Your task to perform on an android device: toggle improve location accuracy Image 0: 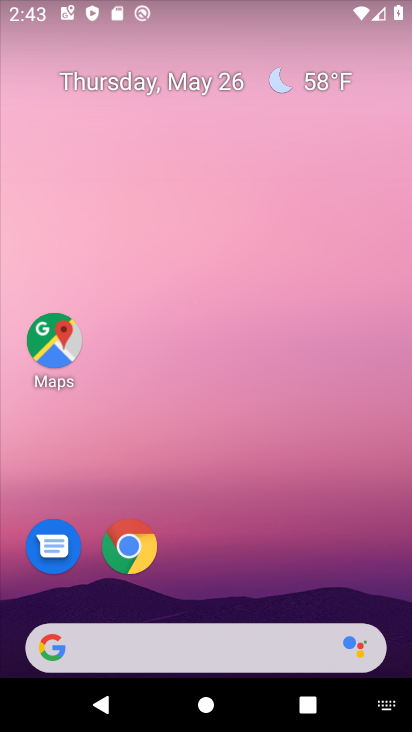
Step 0: press home button
Your task to perform on an android device: toggle improve location accuracy Image 1: 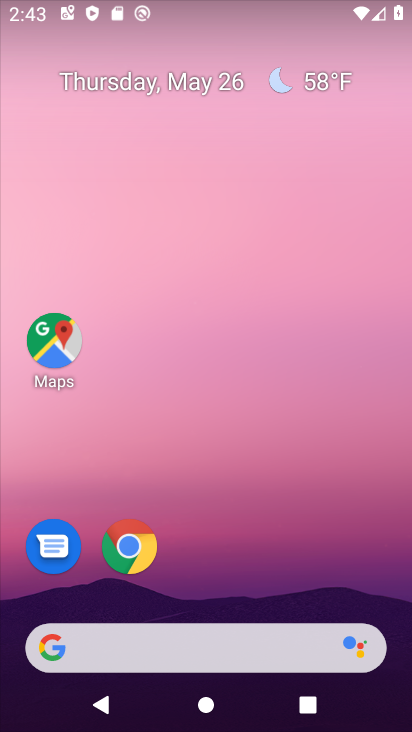
Step 1: drag from (216, 598) to (270, 33)
Your task to perform on an android device: toggle improve location accuracy Image 2: 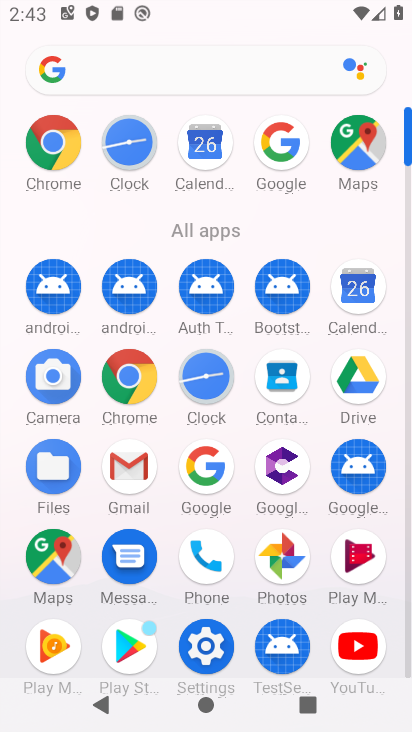
Step 2: click (208, 639)
Your task to perform on an android device: toggle improve location accuracy Image 3: 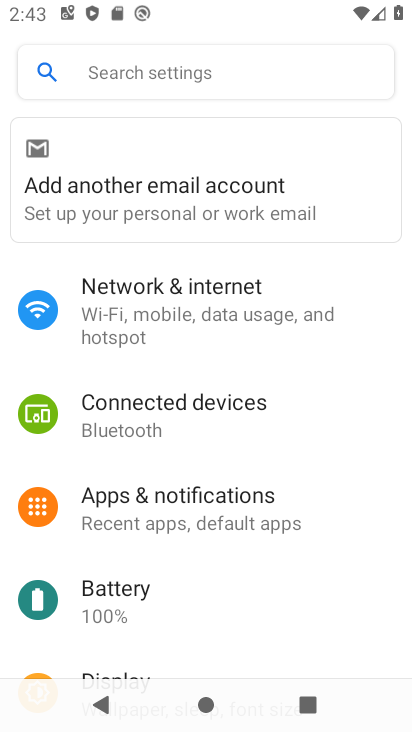
Step 3: drag from (206, 636) to (219, 66)
Your task to perform on an android device: toggle improve location accuracy Image 4: 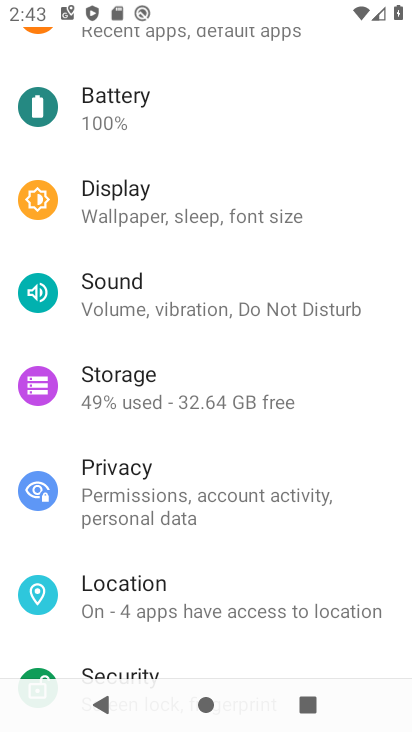
Step 4: click (194, 579)
Your task to perform on an android device: toggle improve location accuracy Image 5: 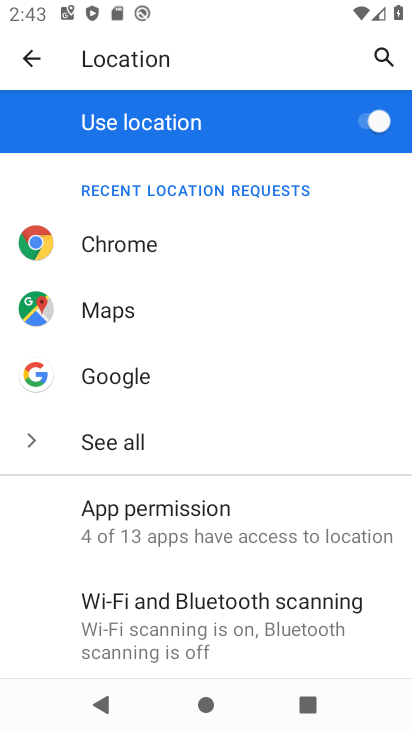
Step 5: drag from (140, 622) to (181, 125)
Your task to perform on an android device: toggle improve location accuracy Image 6: 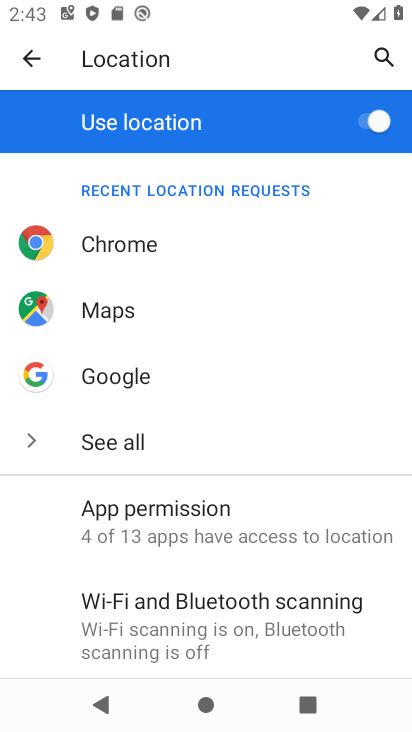
Step 6: drag from (82, 593) to (114, 165)
Your task to perform on an android device: toggle improve location accuracy Image 7: 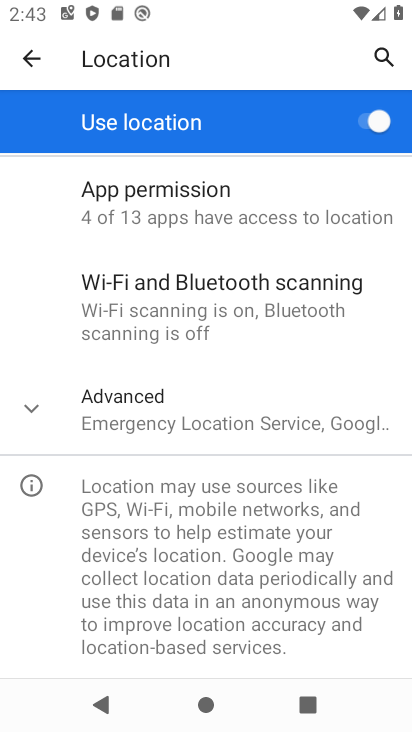
Step 7: click (28, 400)
Your task to perform on an android device: toggle improve location accuracy Image 8: 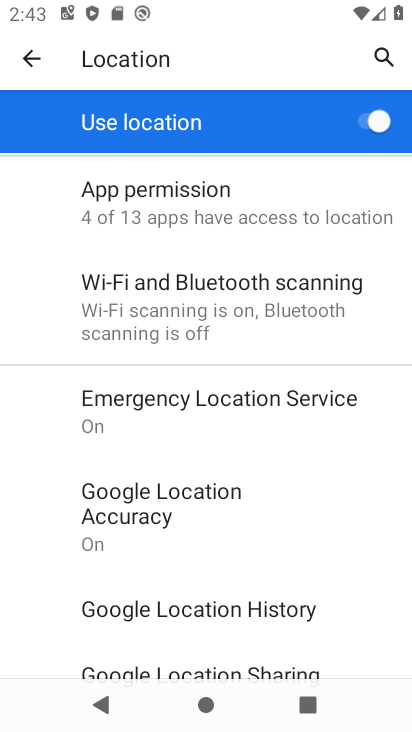
Step 8: click (136, 527)
Your task to perform on an android device: toggle improve location accuracy Image 9: 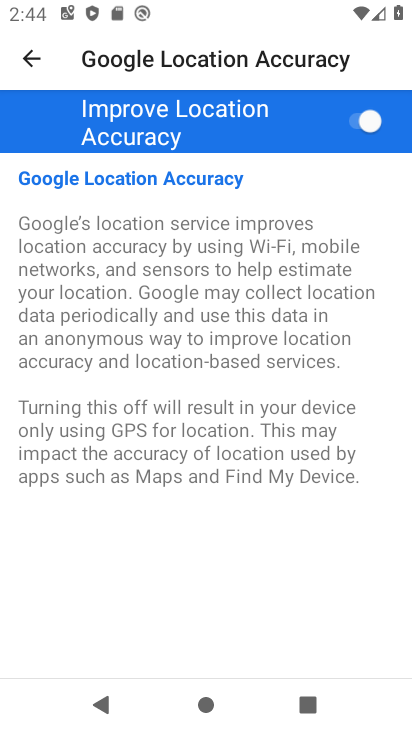
Step 9: click (368, 119)
Your task to perform on an android device: toggle improve location accuracy Image 10: 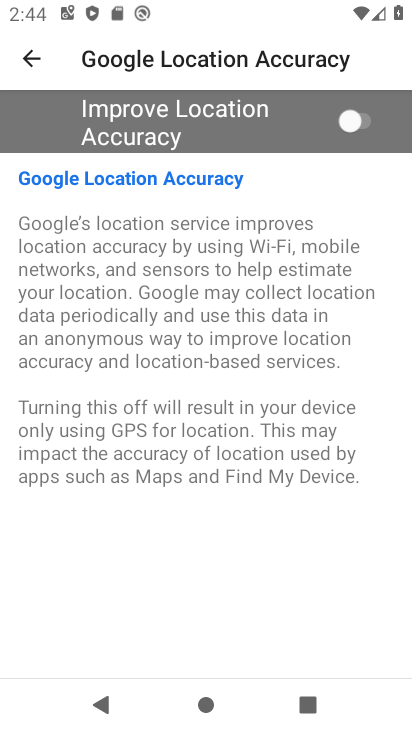
Step 10: task complete